Your task to perform on an android device: toggle javascript in the chrome app Image 0: 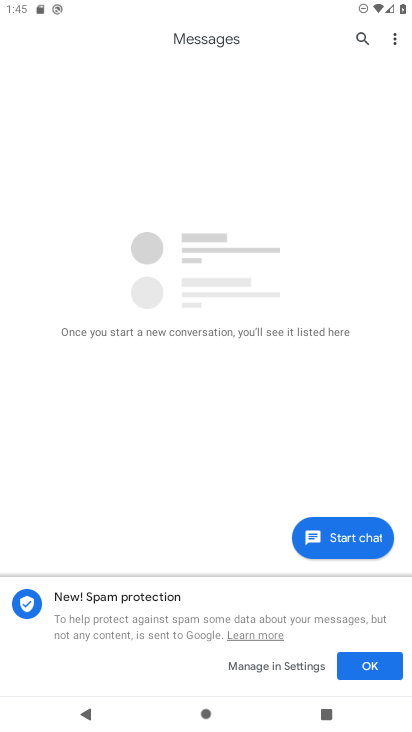
Step 0: press home button
Your task to perform on an android device: toggle javascript in the chrome app Image 1: 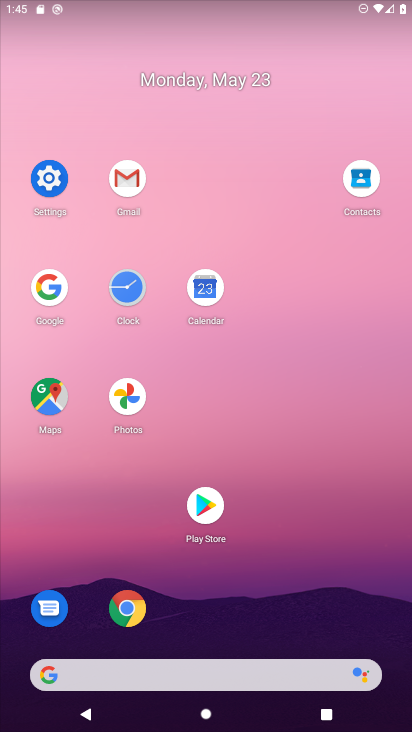
Step 1: click (133, 612)
Your task to perform on an android device: toggle javascript in the chrome app Image 2: 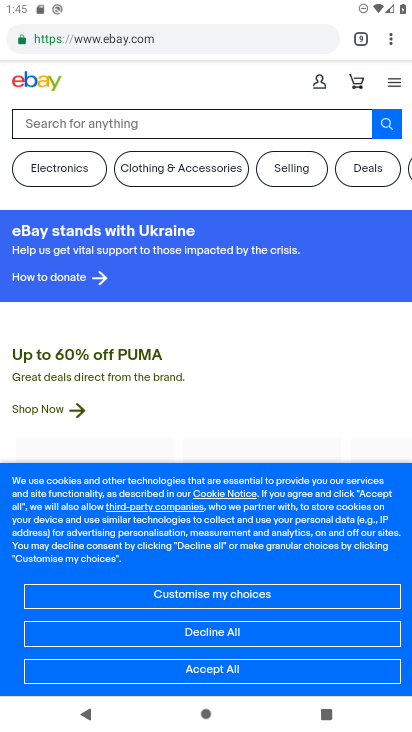
Step 2: click (392, 30)
Your task to perform on an android device: toggle javascript in the chrome app Image 3: 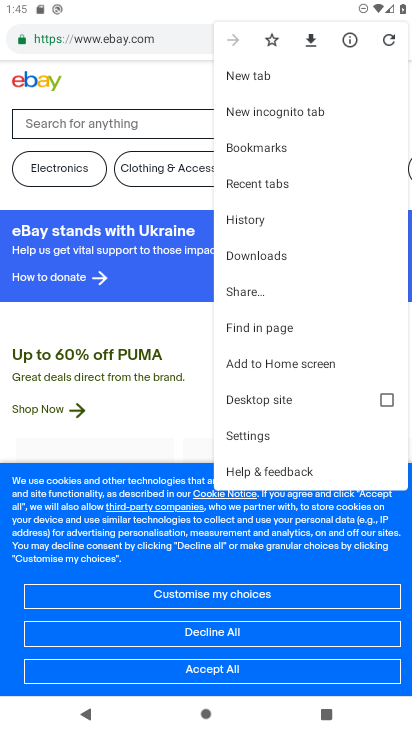
Step 3: click (302, 436)
Your task to perform on an android device: toggle javascript in the chrome app Image 4: 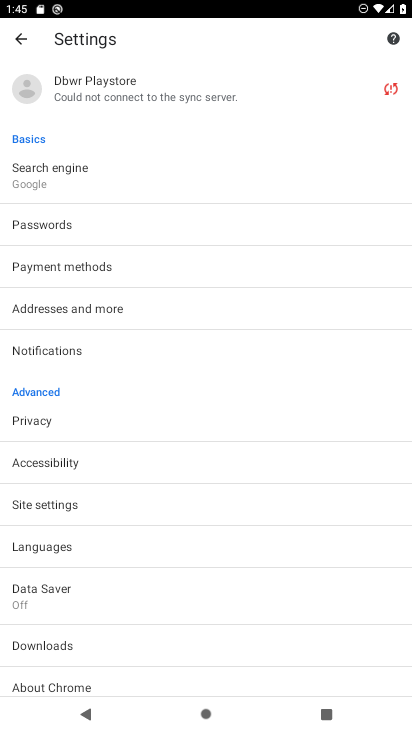
Step 4: drag from (136, 620) to (165, 303)
Your task to perform on an android device: toggle javascript in the chrome app Image 5: 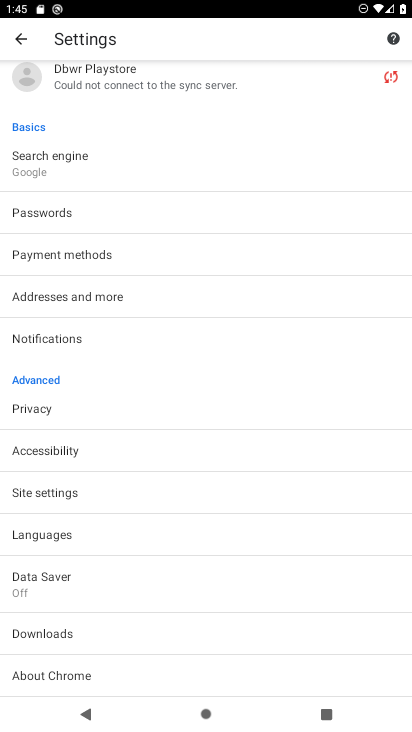
Step 5: click (142, 491)
Your task to perform on an android device: toggle javascript in the chrome app Image 6: 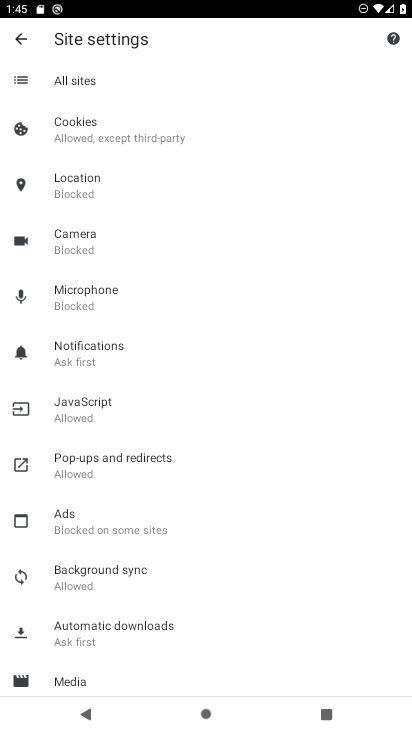
Step 6: click (90, 400)
Your task to perform on an android device: toggle javascript in the chrome app Image 7: 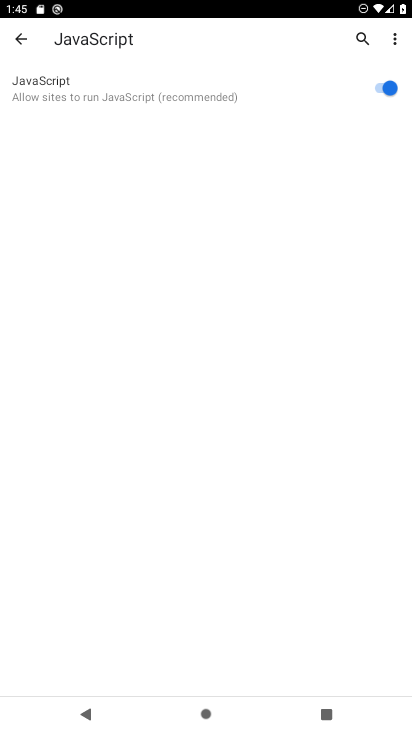
Step 7: click (378, 94)
Your task to perform on an android device: toggle javascript in the chrome app Image 8: 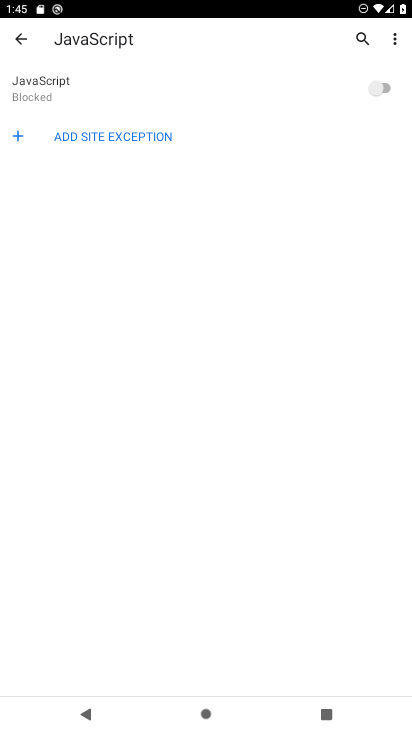
Step 8: task complete